Your task to perform on an android device: turn pop-ups off in chrome Image 0: 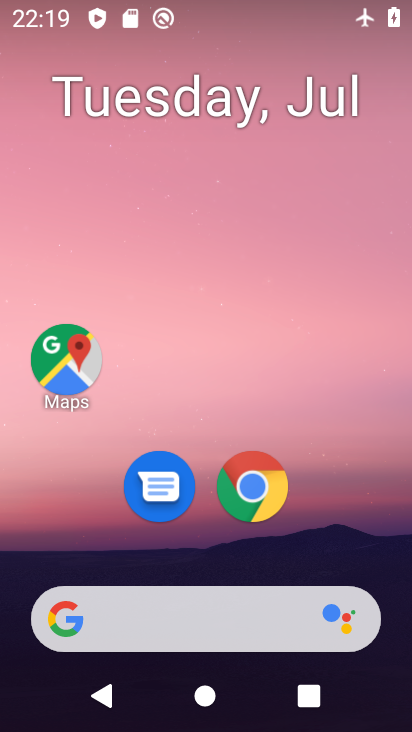
Step 0: press home button
Your task to perform on an android device: turn pop-ups off in chrome Image 1: 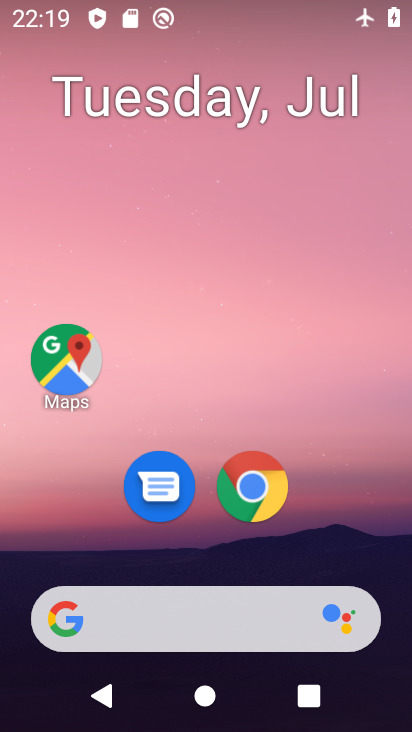
Step 1: drag from (368, 542) to (356, 278)
Your task to perform on an android device: turn pop-ups off in chrome Image 2: 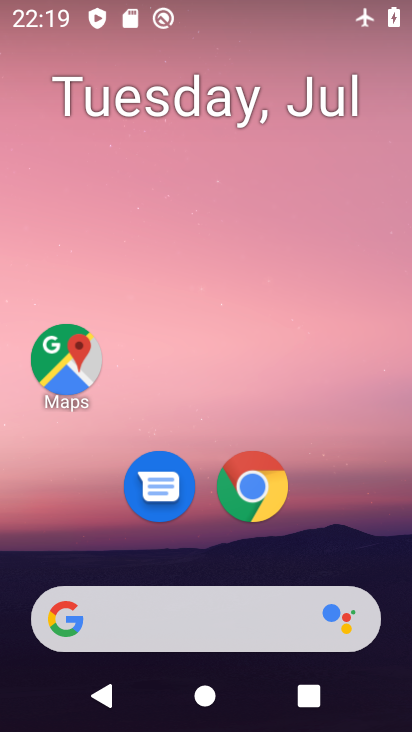
Step 2: drag from (339, 470) to (338, 200)
Your task to perform on an android device: turn pop-ups off in chrome Image 3: 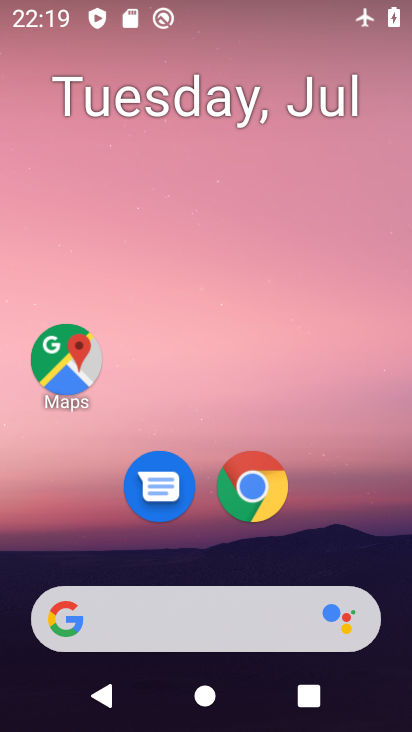
Step 3: drag from (359, 528) to (360, 242)
Your task to perform on an android device: turn pop-ups off in chrome Image 4: 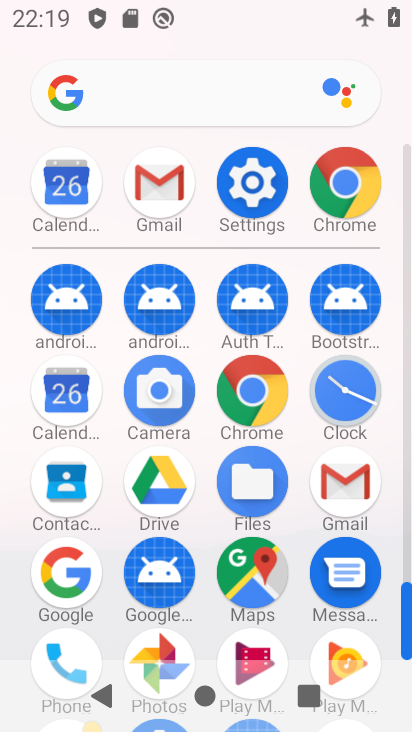
Step 4: click (255, 393)
Your task to perform on an android device: turn pop-ups off in chrome Image 5: 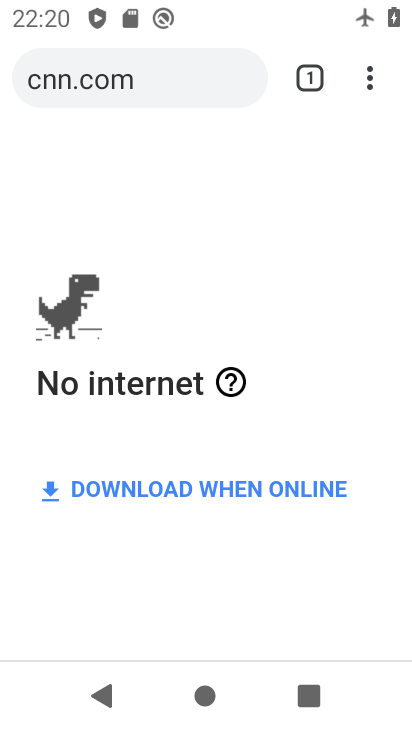
Step 5: click (367, 85)
Your task to perform on an android device: turn pop-ups off in chrome Image 6: 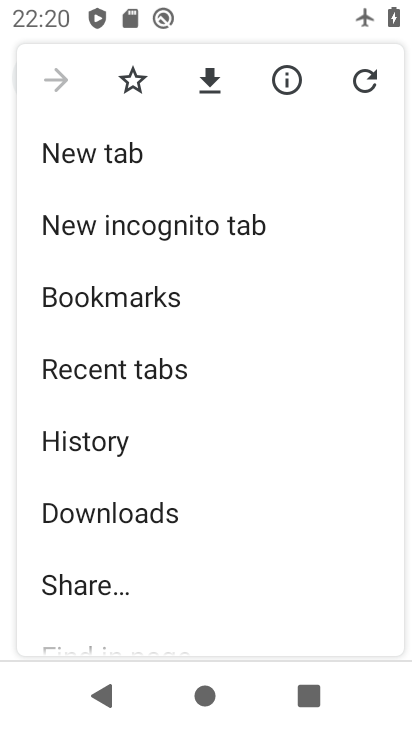
Step 6: drag from (333, 405) to (336, 350)
Your task to perform on an android device: turn pop-ups off in chrome Image 7: 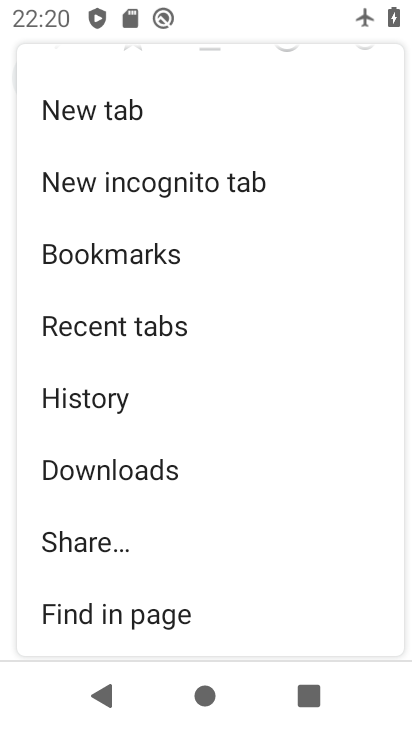
Step 7: drag from (338, 507) to (336, 415)
Your task to perform on an android device: turn pop-ups off in chrome Image 8: 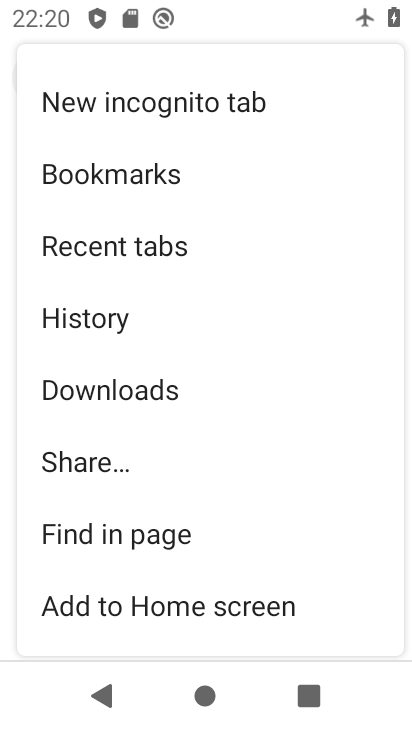
Step 8: drag from (338, 558) to (339, 488)
Your task to perform on an android device: turn pop-ups off in chrome Image 9: 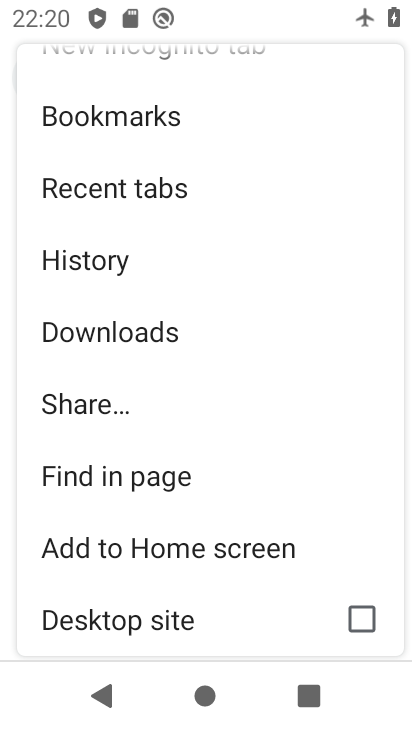
Step 9: drag from (310, 555) to (307, 456)
Your task to perform on an android device: turn pop-ups off in chrome Image 10: 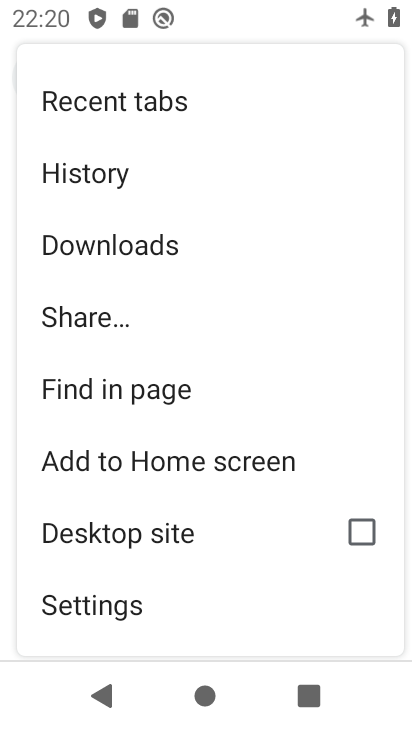
Step 10: click (288, 597)
Your task to perform on an android device: turn pop-ups off in chrome Image 11: 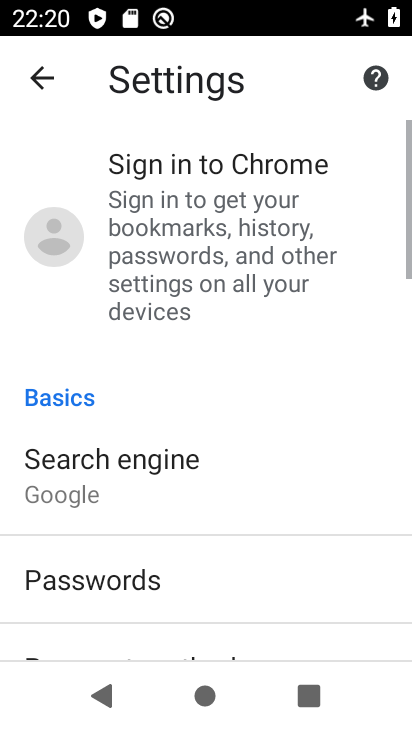
Step 11: drag from (288, 597) to (294, 517)
Your task to perform on an android device: turn pop-ups off in chrome Image 12: 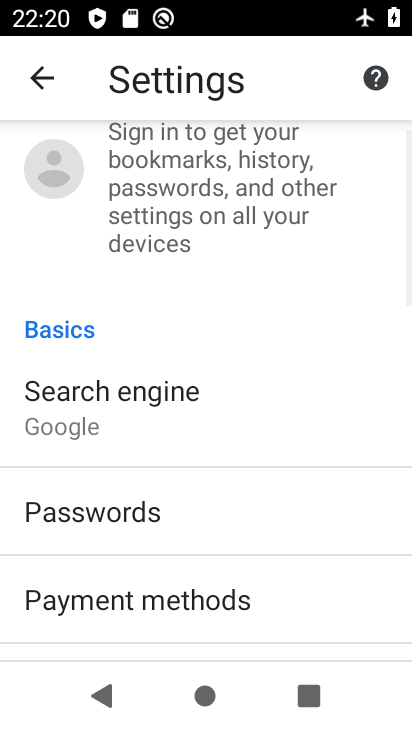
Step 12: drag from (341, 583) to (331, 512)
Your task to perform on an android device: turn pop-ups off in chrome Image 13: 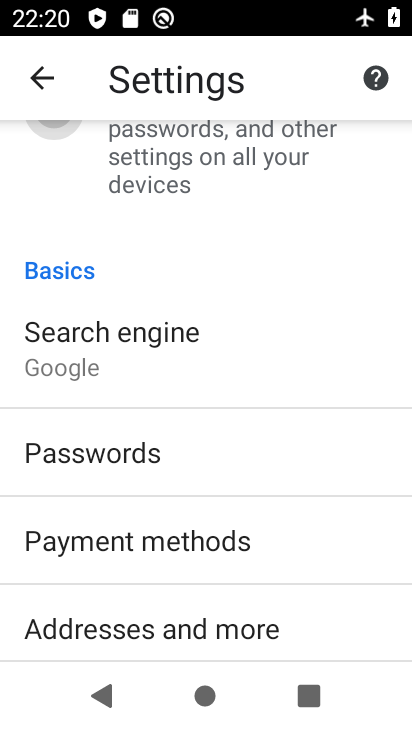
Step 13: drag from (323, 592) to (321, 521)
Your task to perform on an android device: turn pop-ups off in chrome Image 14: 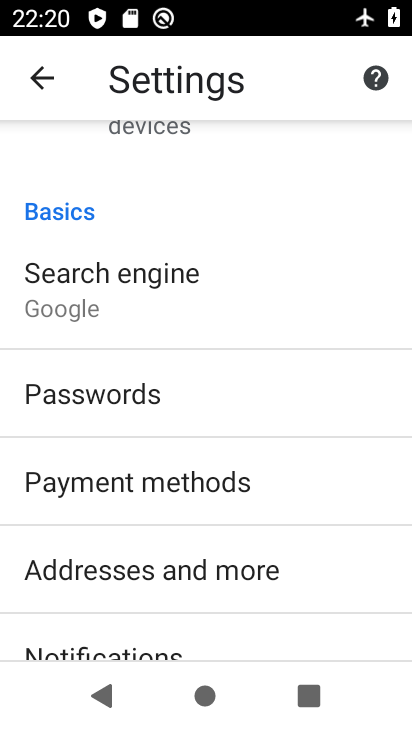
Step 14: drag from (331, 588) to (327, 511)
Your task to perform on an android device: turn pop-ups off in chrome Image 15: 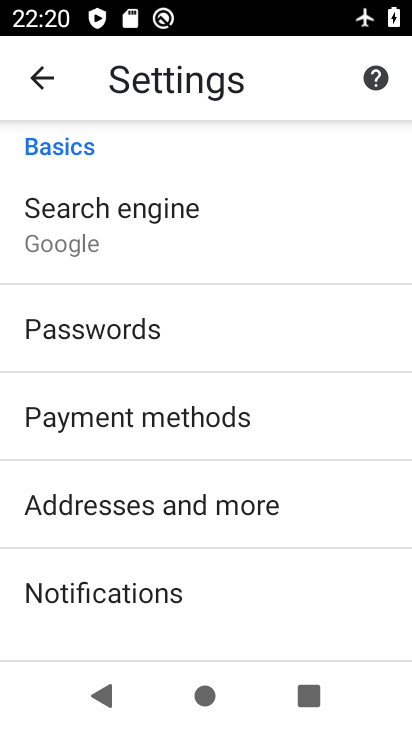
Step 15: drag from (328, 592) to (326, 521)
Your task to perform on an android device: turn pop-ups off in chrome Image 16: 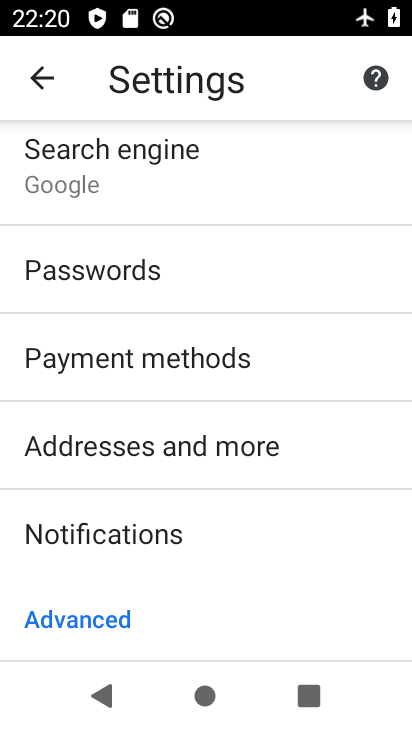
Step 16: drag from (334, 599) to (337, 510)
Your task to perform on an android device: turn pop-ups off in chrome Image 17: 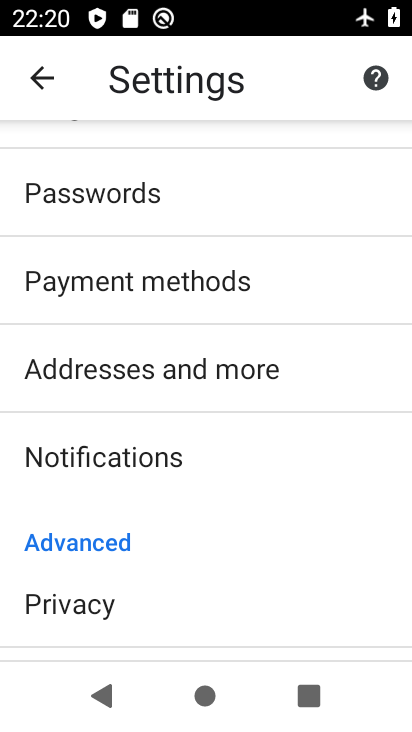
Step 17: drag from (337, 608) to (336, 520)
Your task to perform on an android device: turn pop-ups off in chrome Image 18: 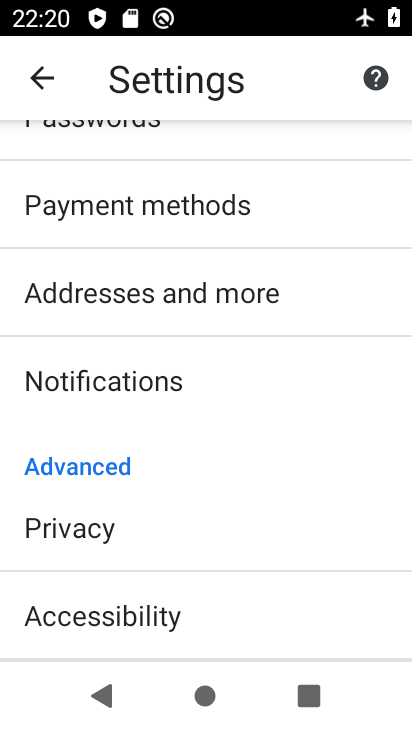
Step 18: drag from (332, 597) to (332, 510)
Your task to perform on an android device: turn pop-ups off in chrome Image 19: 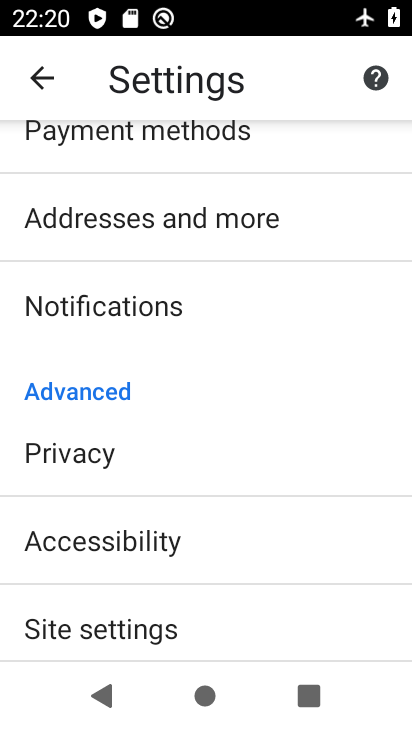
Step 19: drag from (331, 610) to (332, 516)
Your task to perform on an android device: turn pop-ups off in chrome Image 20: 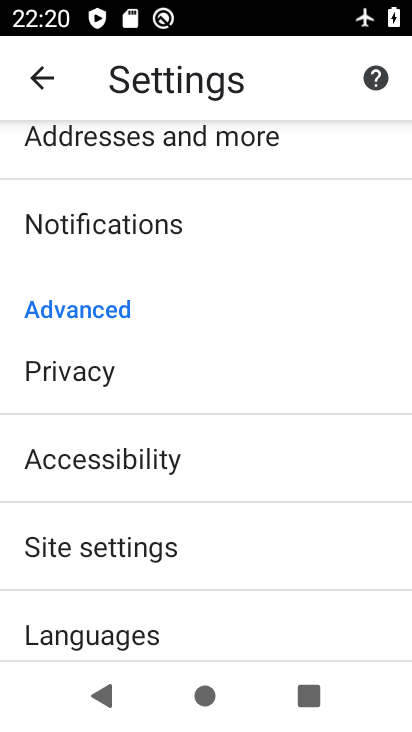
Step 20: drag from (335, 608) to (331, 534)
Your task to perform on an android device: turn pop-ups off in chrome Image 21: 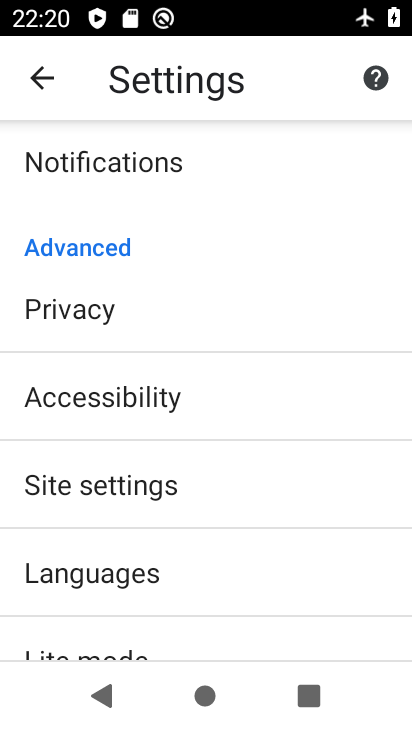
Step 21: click (332, 507)
Your task to perform on an android device: turn pop-ups off in chrome Image 22: 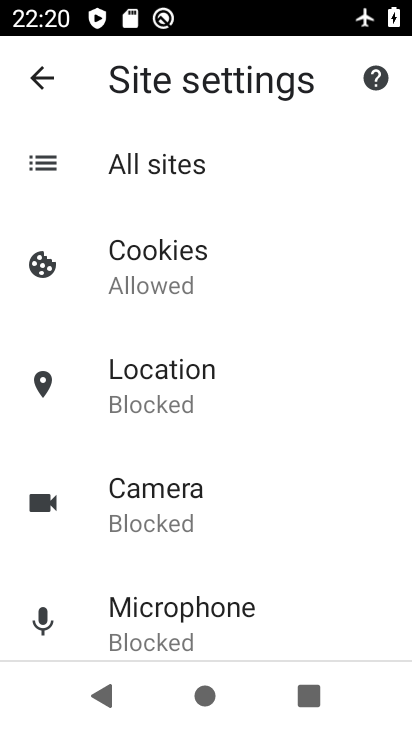
Step 22: drag from (333, 568) to (333, 514)
Your task to perform on an android device: turn pop-ups off in chrome Image 23: 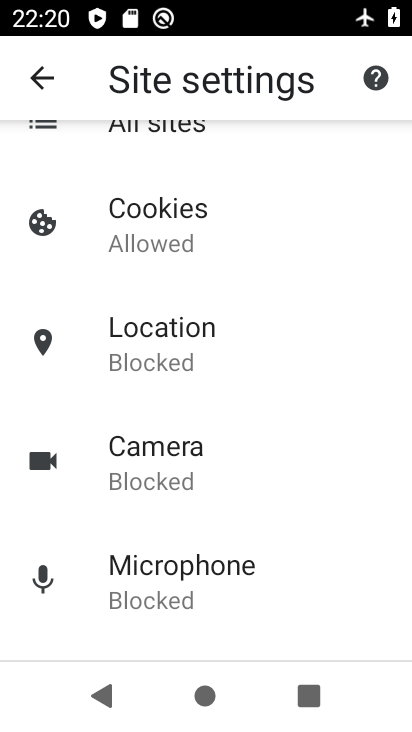
Step 23: drag from (326, 583) to (327, 515)
Your task to perform on an android device: turn pop-ups off in chrome Image 24: 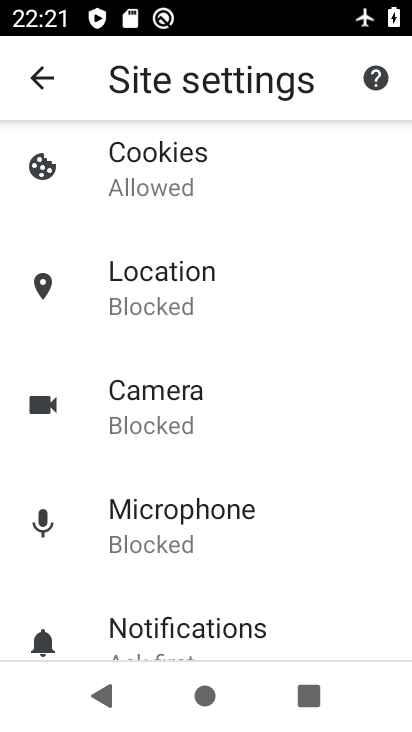
Step 24: drag from (327, 568) to (322, 498)
Your task to perform on an android device: turn pop-ups off in chrome Image 25: 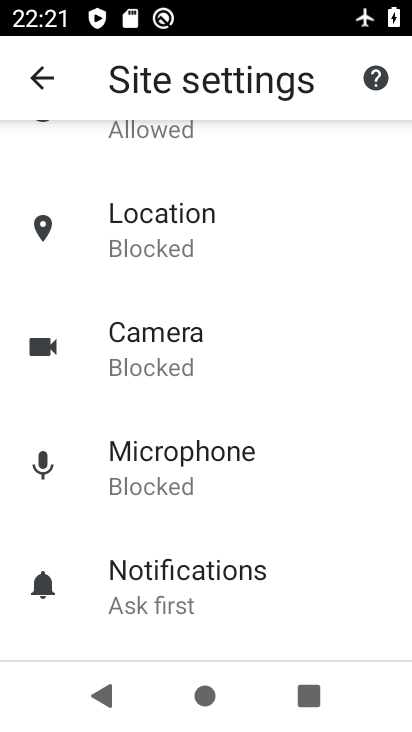
Step 25: drag from (329, 587) to (323, 477)
Your task to perform on an android device: turn pop-ups off in chrome Image 26: 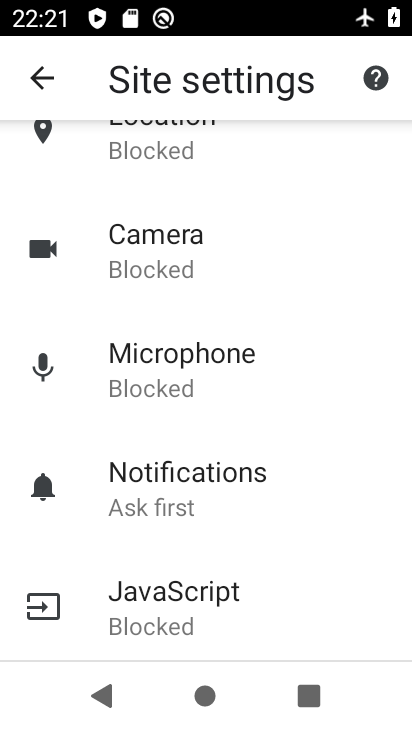
Step 26: drag from (323, 559) to (321, 475)
Your task to perform on an android device: turn pop-ups off in chrome Image 27: 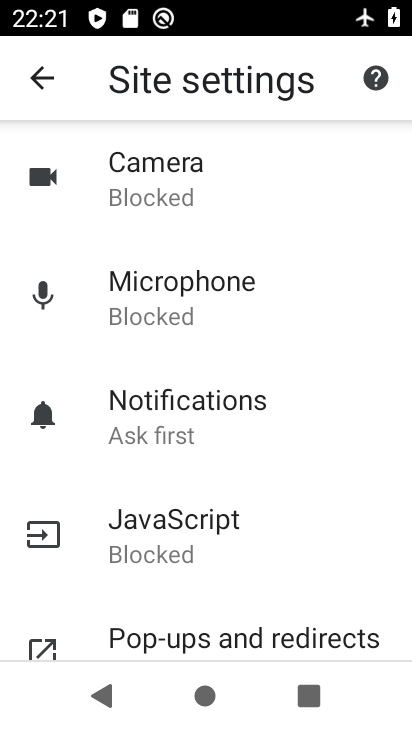
Step 27: drag from (325, 564) to (323, 473)
Your task to perform on an android device: turn pop-ups off in chrome Image 28: 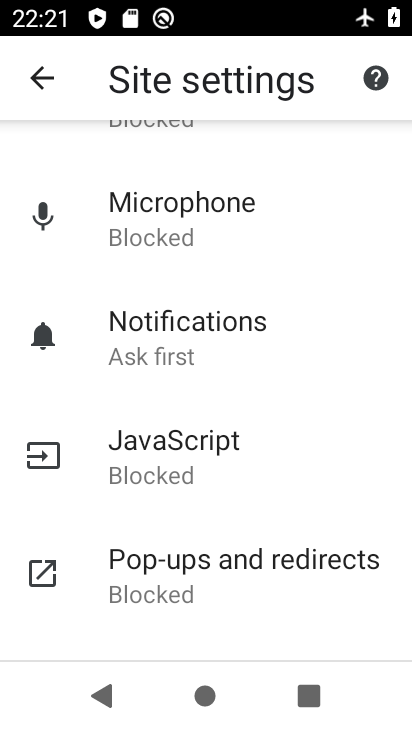
Step 28: drag from (309, 583) to (309, 493)
Your task to perform on an android device: turn pop-ups off in chrome Image 29: 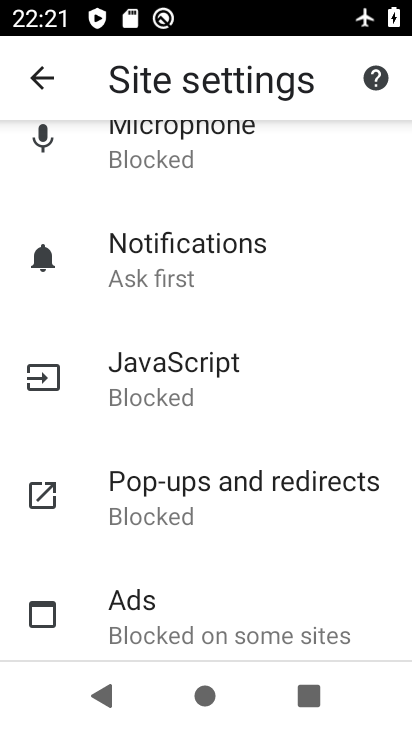
Step 29: click (309, 492)
Your task to perform on an android device: turn pop-ups off in chrome Image 30: 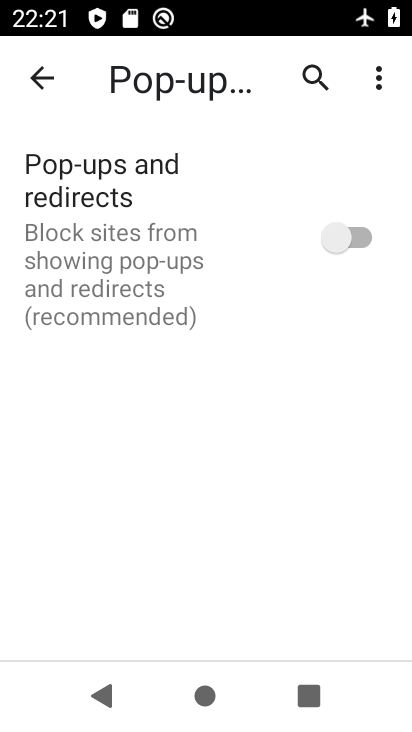
Step 30: task complete